Your task to perform on an android device: Open Yahoo.com Image 0: 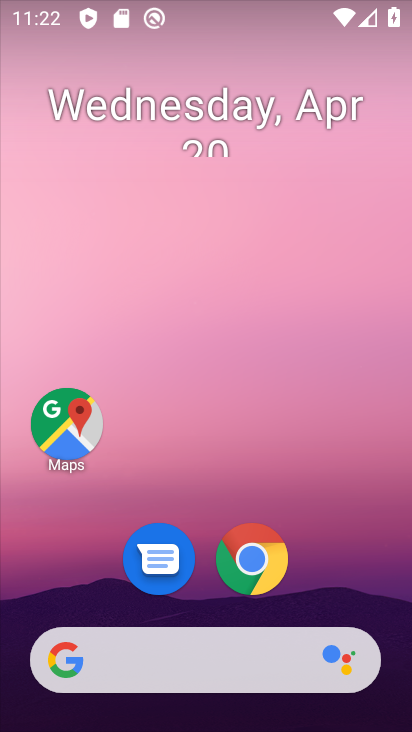
Step 0: click (259, 567)
Your task to perform on an android device: Open Yahoo.com Image 1: 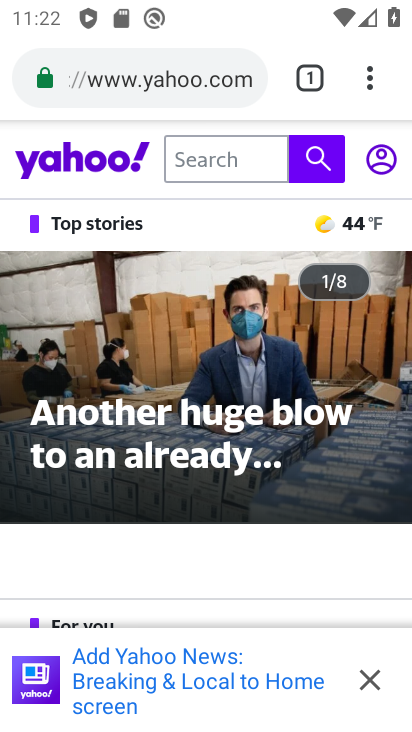
Step 1: task complete